Your task to perform on an android device: change the clock style Image 0: 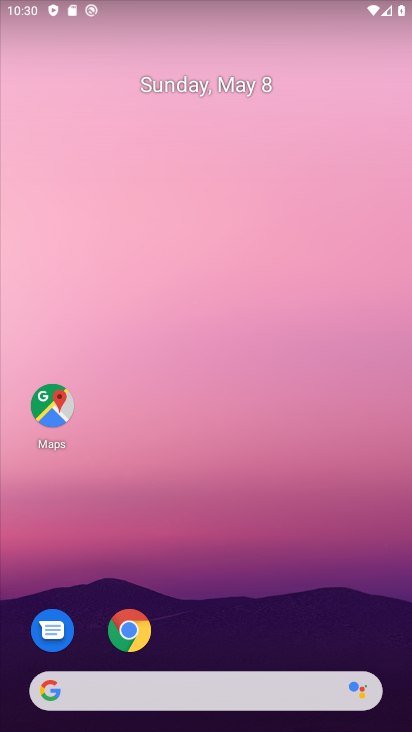
Step 0: drag from (241, 664) to (227, 236)
Your task to perform on an android device: change the clock style Image 1: 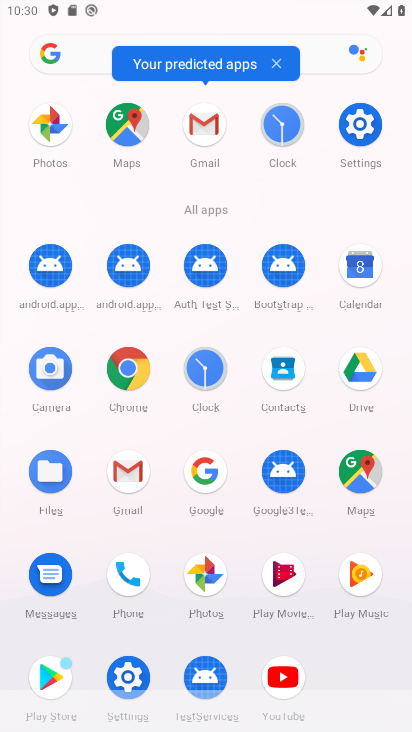
Step 1: click (204, 368)
Your task to perform on an android device: change the clock style Image 2: 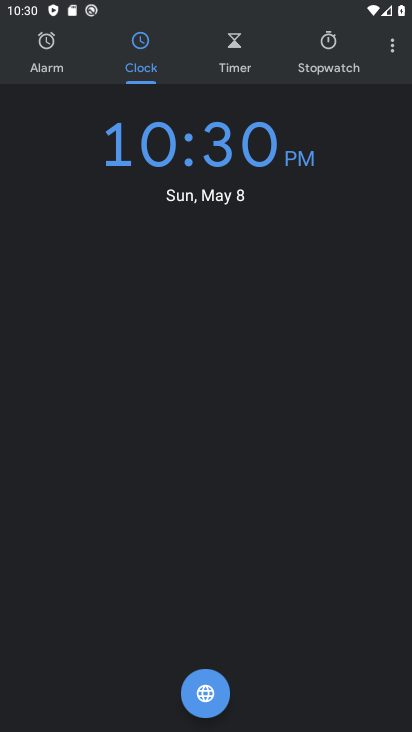
Step 2: click (394, 43)
Your task to perform on an android device: change the clock style Image 3: 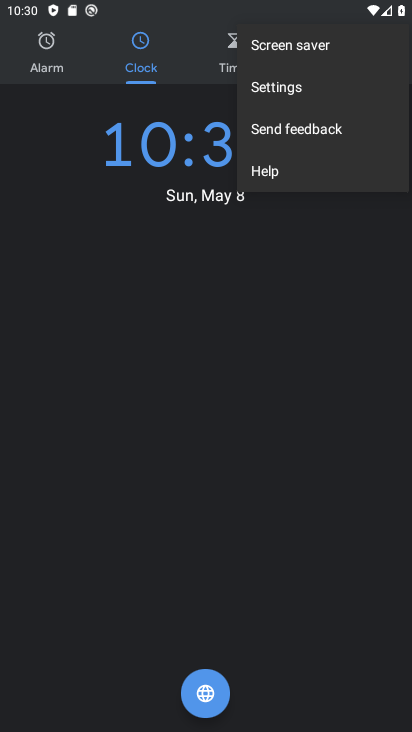
Step 3: click (364, 93)
Your task to perform on an android device: change the clock style Image 4: 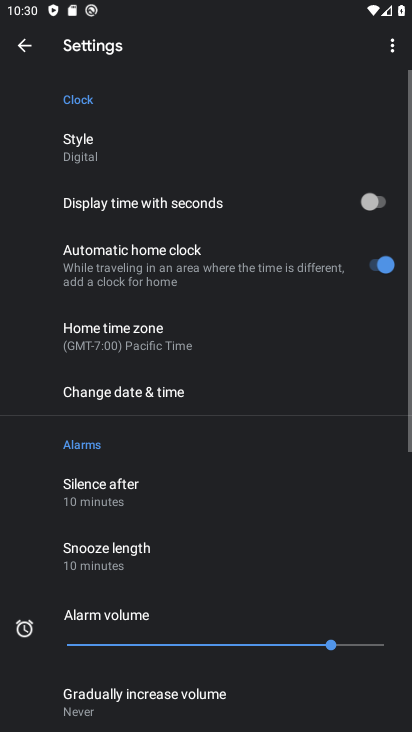
Step 4: click (329, 139)
Your task to perform on an android device: change the clock style Image 5: 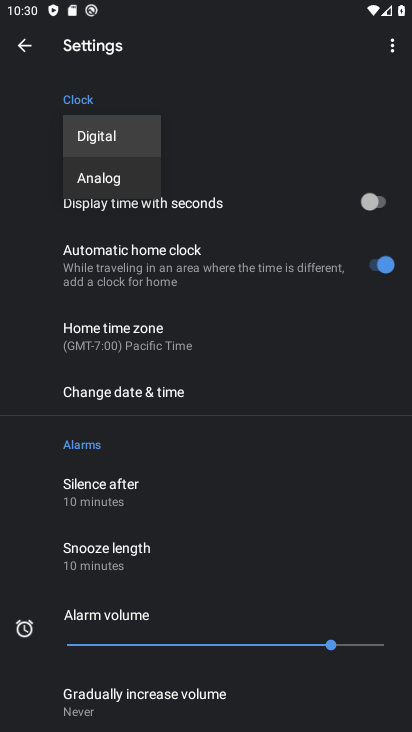
Step 5: click (141, 187)
Your task to perform on an android device: change the clock style Image 6: 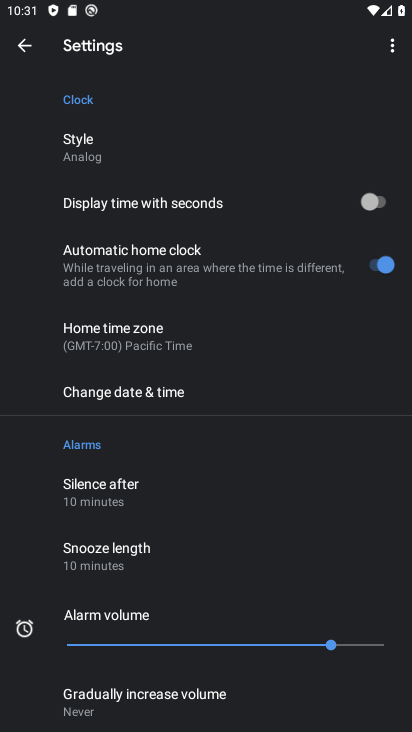
Step 6: task complete